Your task to perform on an android device: check battery use Image 0: 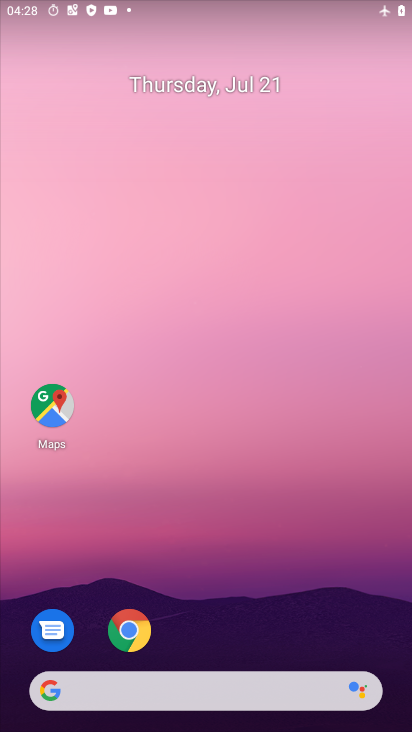
Step 0: drag from (199, 16) to (221, 485)
Your task to perform on an android device: check battery use Image 1: 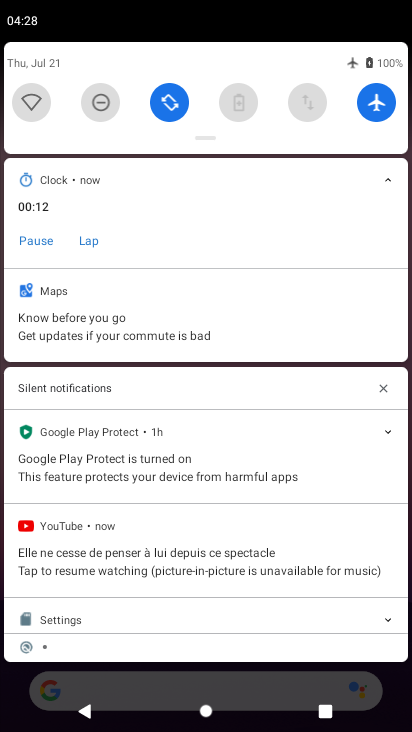
Step 1: click (241, 114)
Your task to perform on an android device: check battery use Image 2: 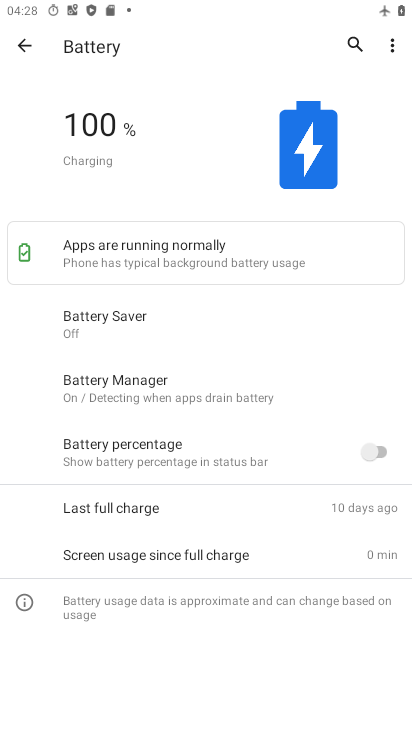
Step 2: click (385, 52)
Your task to perform on an android device: check battery use Image 3: 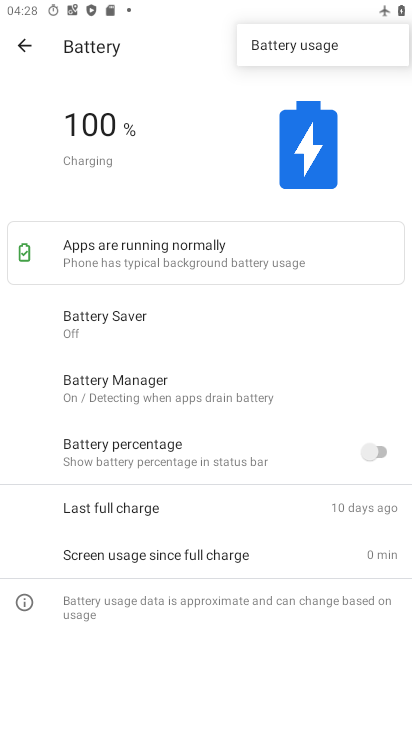
Step 3: click (346, 43)
Your task to perform on an android device: check battery use Image 4: 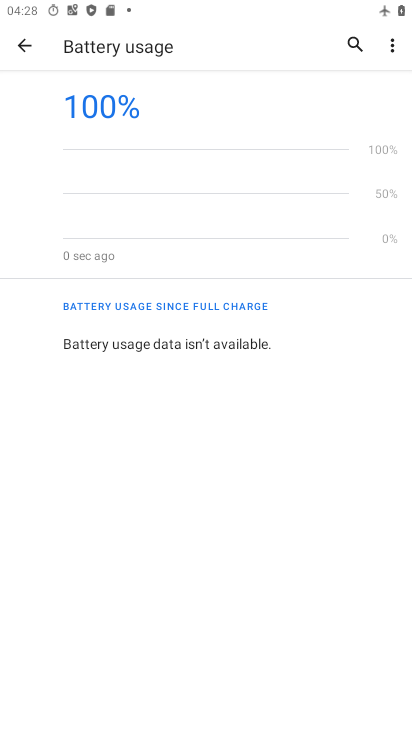
Step 4: task complete